Your task to perform on an android device: Open the map Image 0: 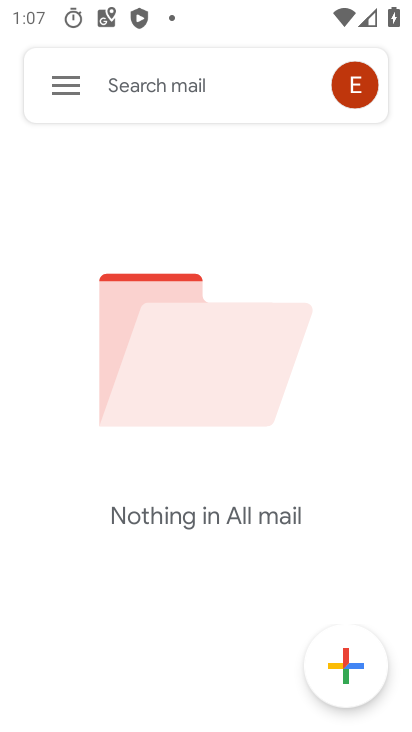
Step 0: press back button
Your task to perform on an android device: Open the map Image 1: 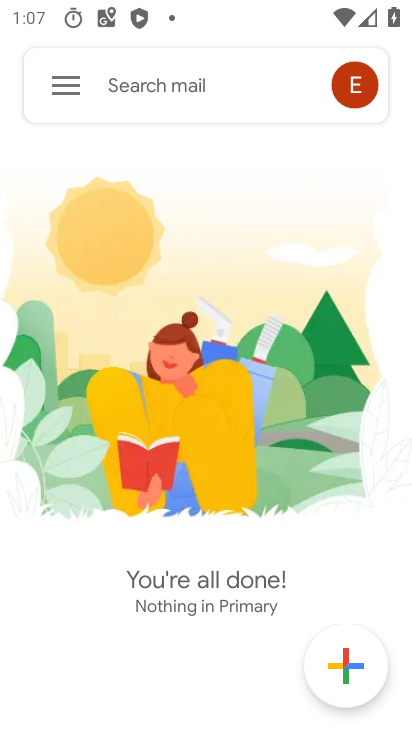
Step 1: press back button
Your task to perform on an android device: Open the map Image 2: 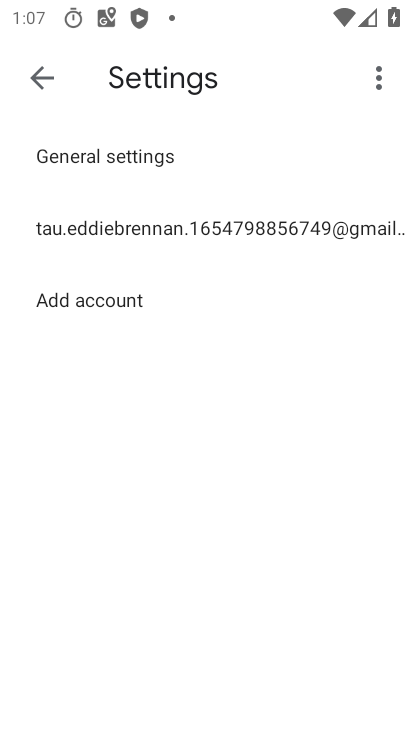
Step 2: press back button
Your task to perform on an android device: Open the map Image 3: 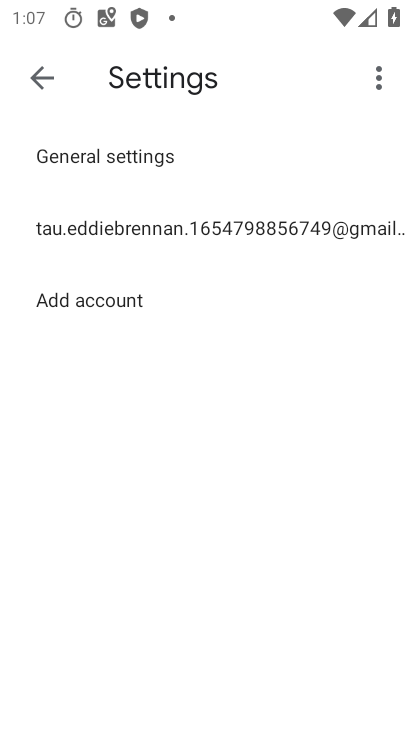
Step 3: press back button
Your task to perform on an android device: Open the map Image 4: 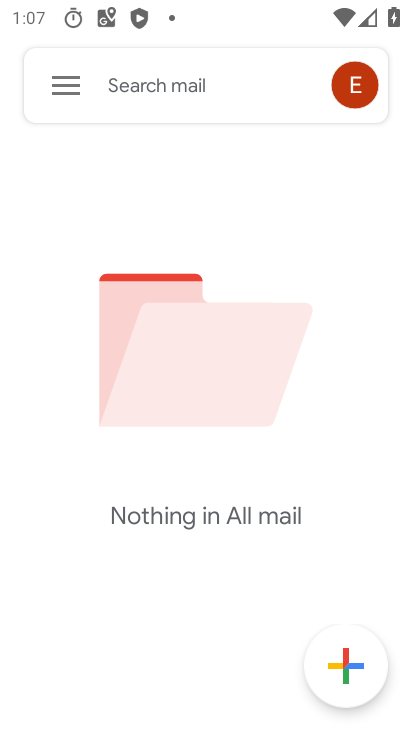
Step 4: press back button
Your task to perform on an android device: Open the map Image 5: 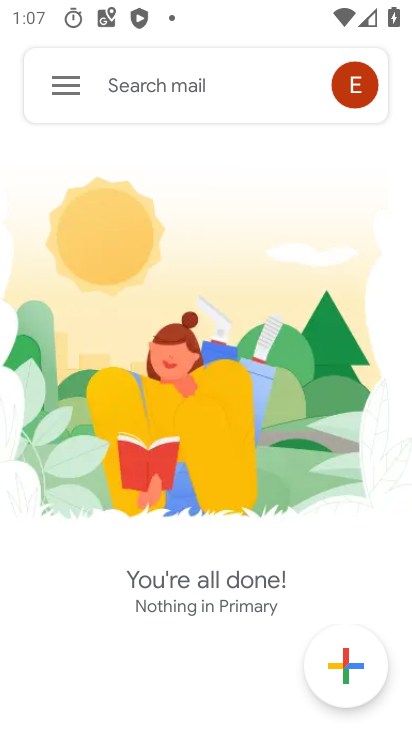
Step 5: press back button
Your task to perform on an android device: Open the map Image 6: 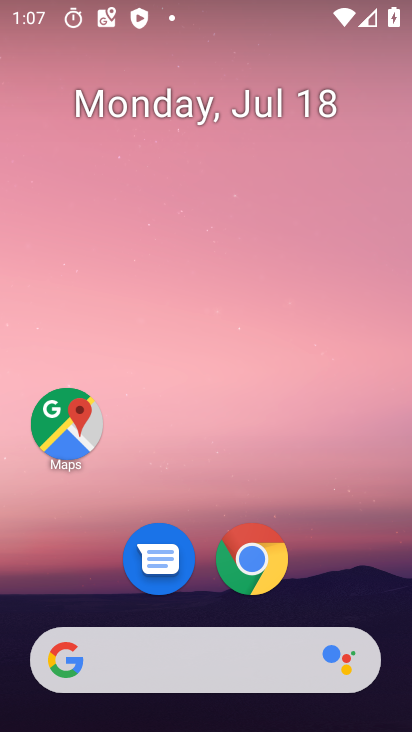
Step 6: click (63, 413)
Your task to perform on an android device: Open the map Image 7: 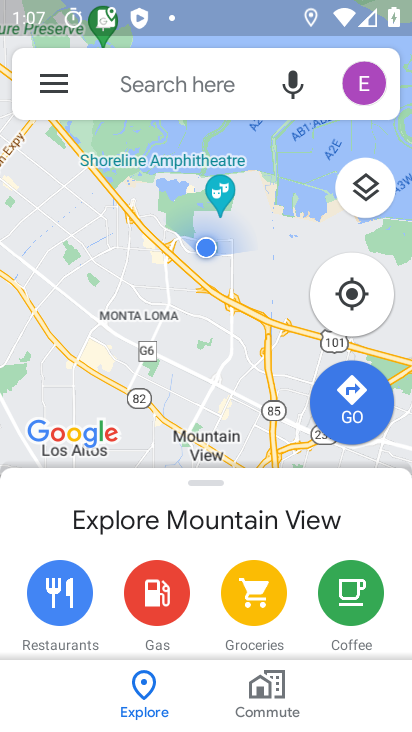
Step 7: task complete